Your task to perform on an android device: Go to Android settings Image 0: 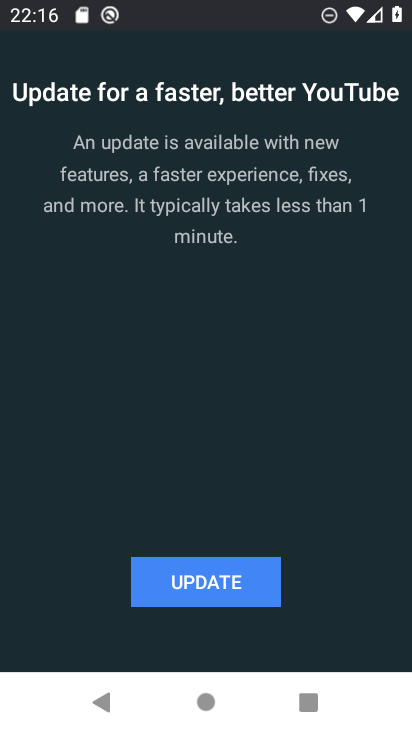
Step 0: press home button
Your task to perform on an android device: Go to Android settings Image 1: 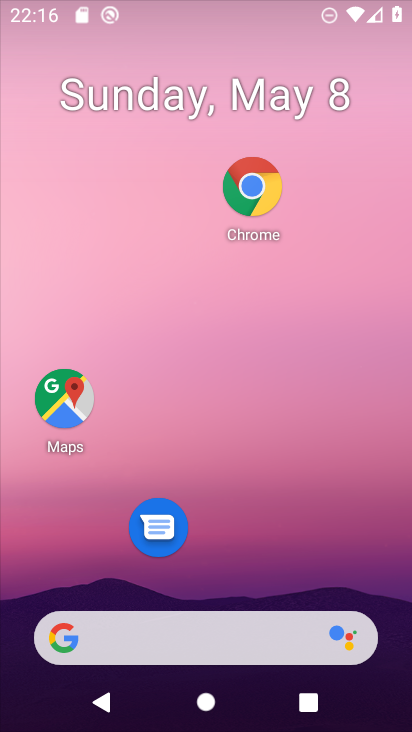
Step 1: drag from (303, 549) to (340, 242)
Your task to perform on an android device: Go to Android settings Image 2: 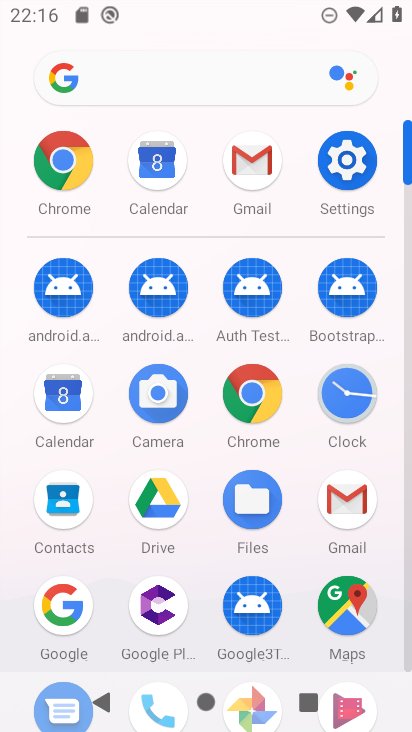
Step 2: click (336, 153)
Your task to perform on an android device: Go to Android settings Image 3: 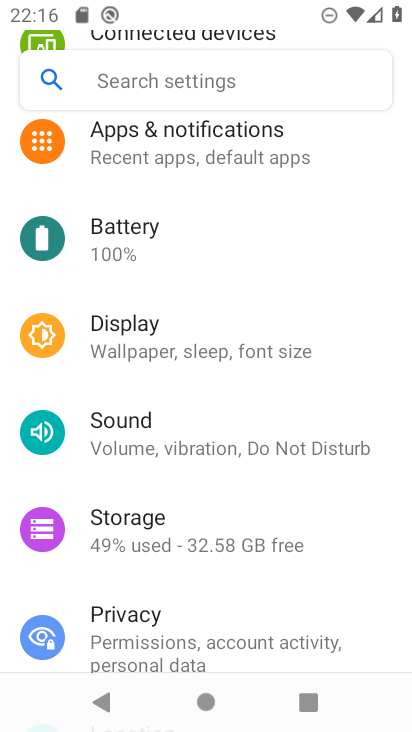
Step 3: task complete